Your task to perform on an android device: Install the Pandora app Image 0: 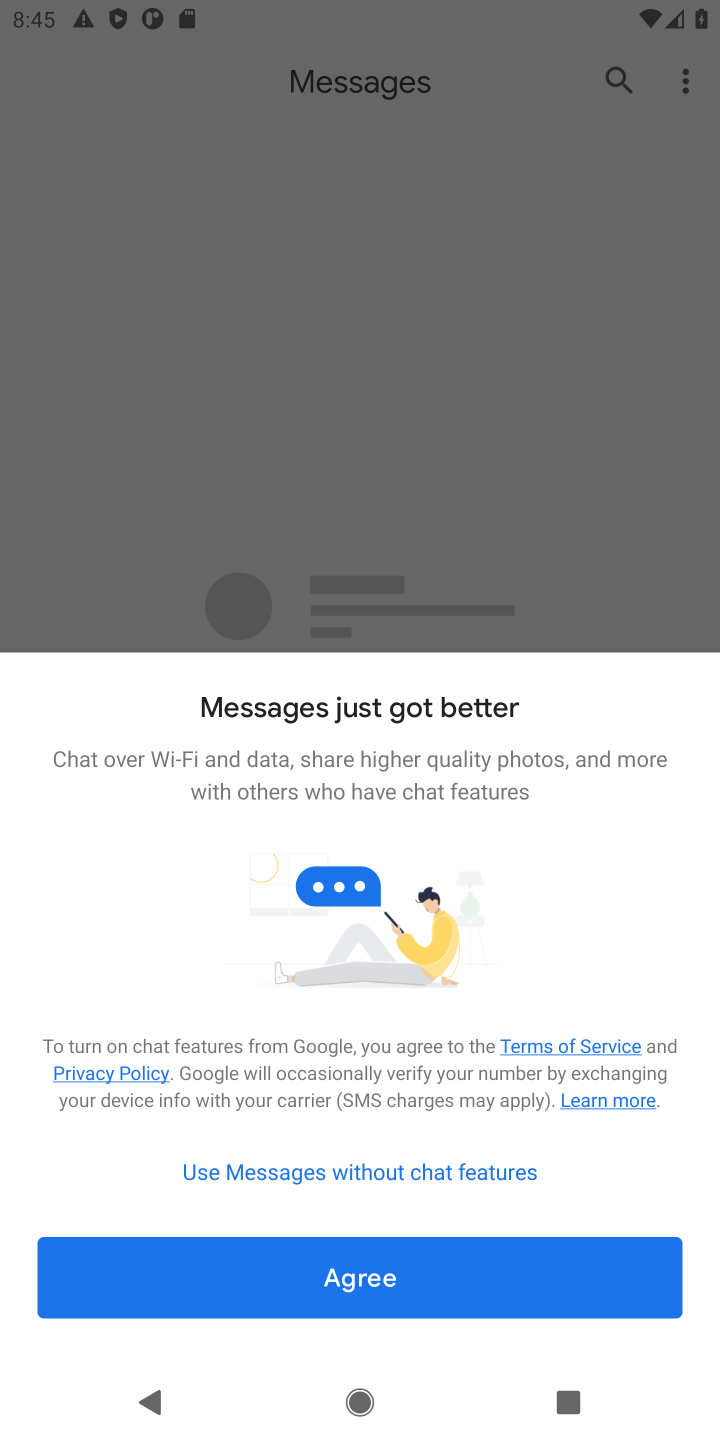
Step 0: press home button
Your task to perform on an android device: Install the Pandora app Image 1: 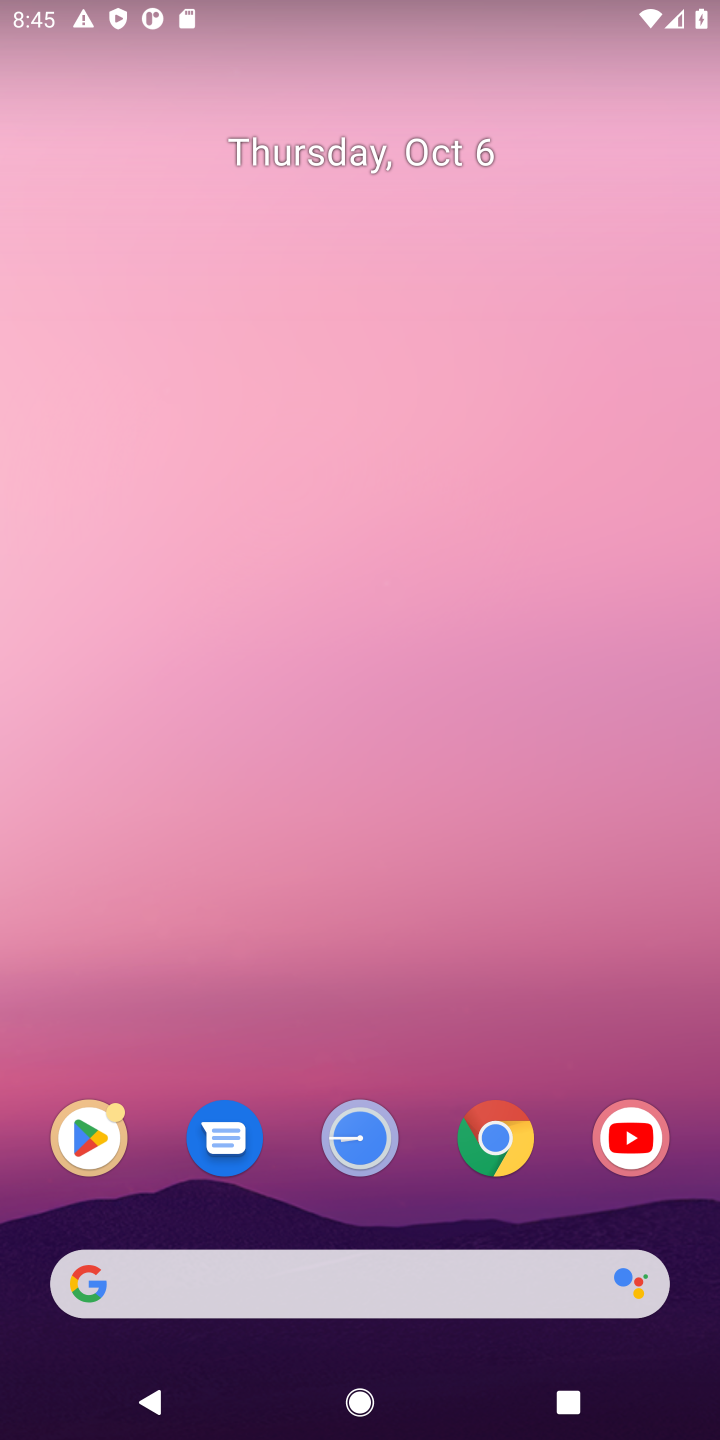
Step 1: click (79, 1132)
Your task to perform on an android device: Install the Pandora app Image 2: 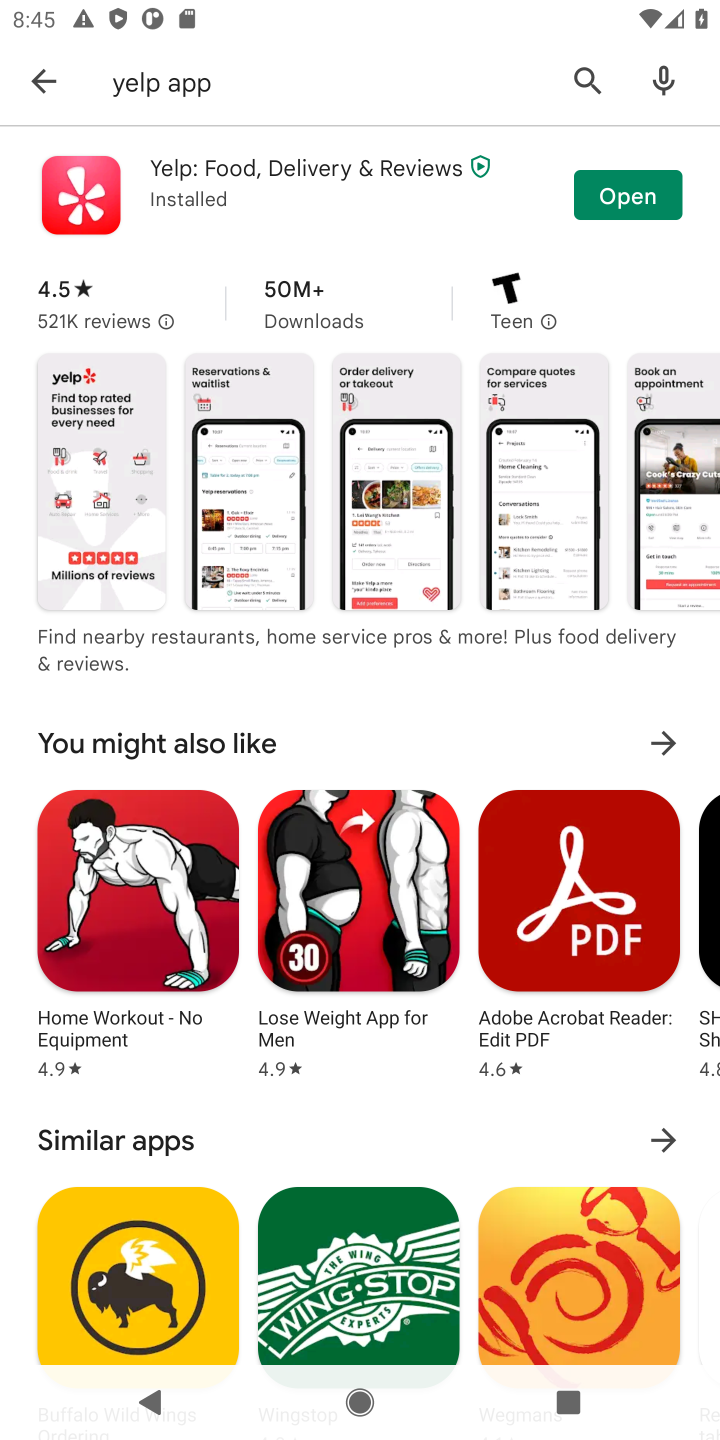
Step 2: click (281, 90)
Your task to perform on an android device: Install the Pandora app Image 3: 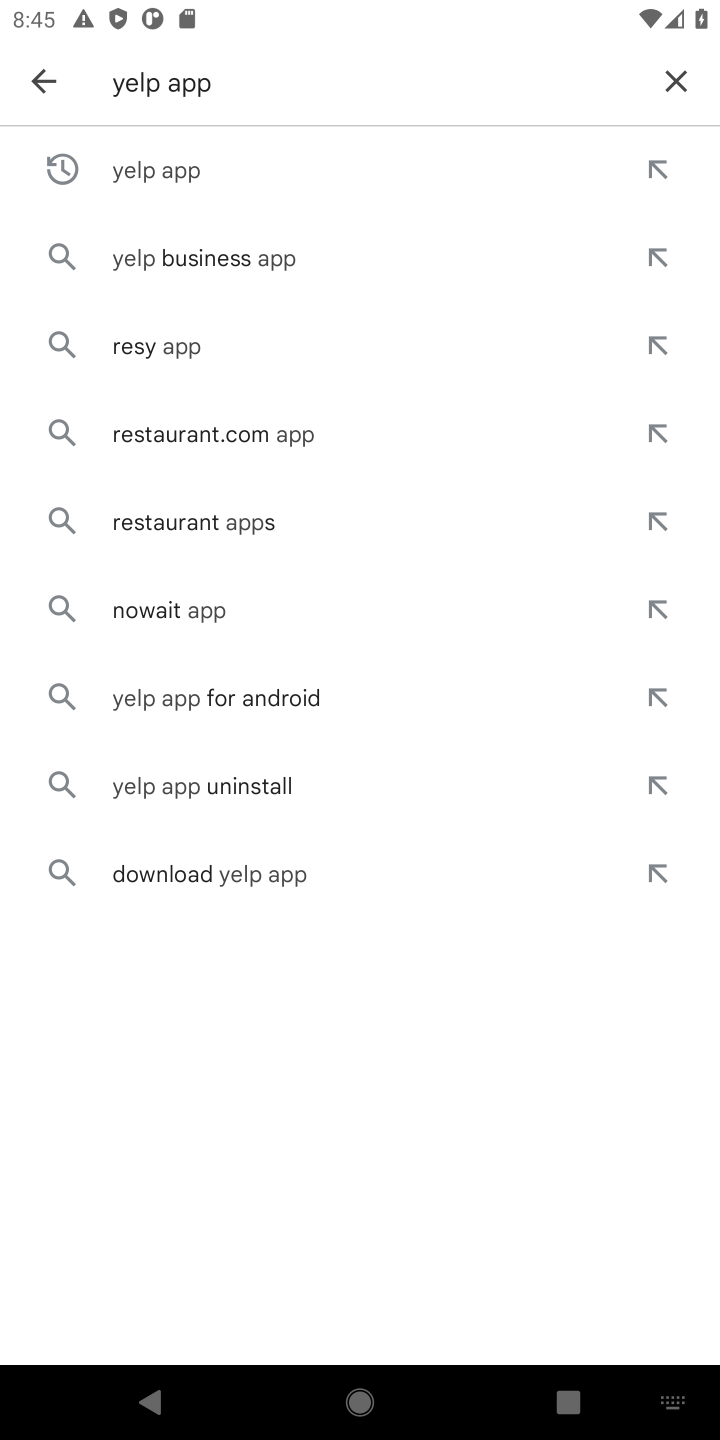
Step 3: click (680, 70)
Your task to perform on an android device: Install the Pandora app Image 4: 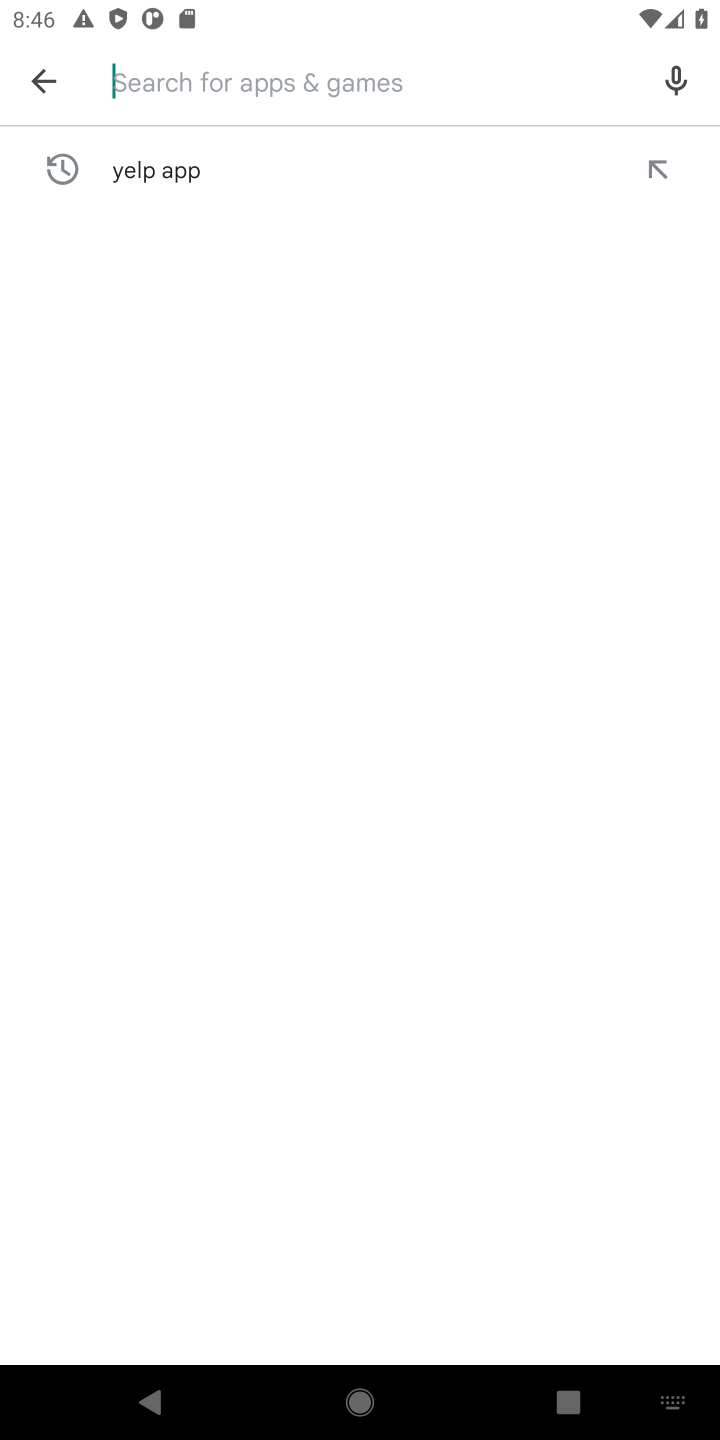
Step 4: type "pandora app"
Your task to perform on an android device: Install the Pandora app Image 5: 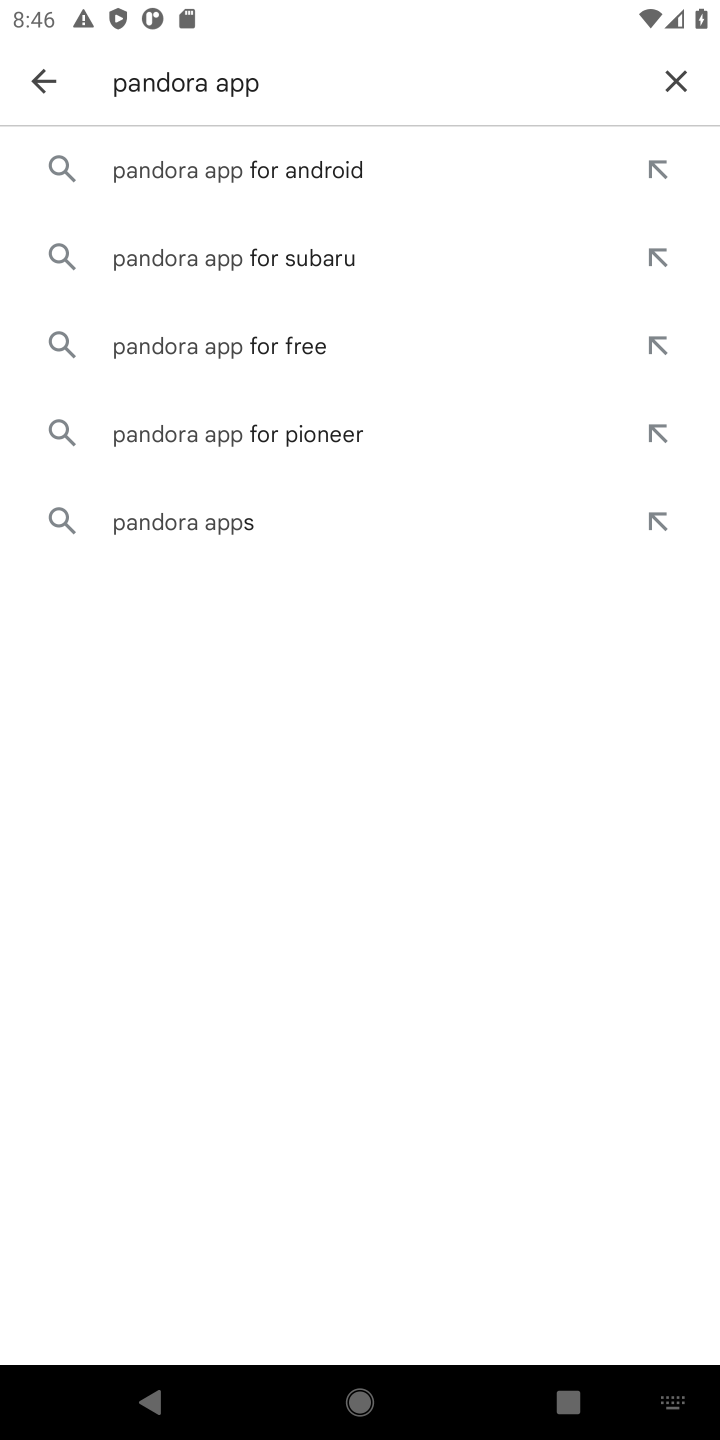
Step 5: click (222, 515)
Your task to perform on an android device: Install the Pandora app Image 6: 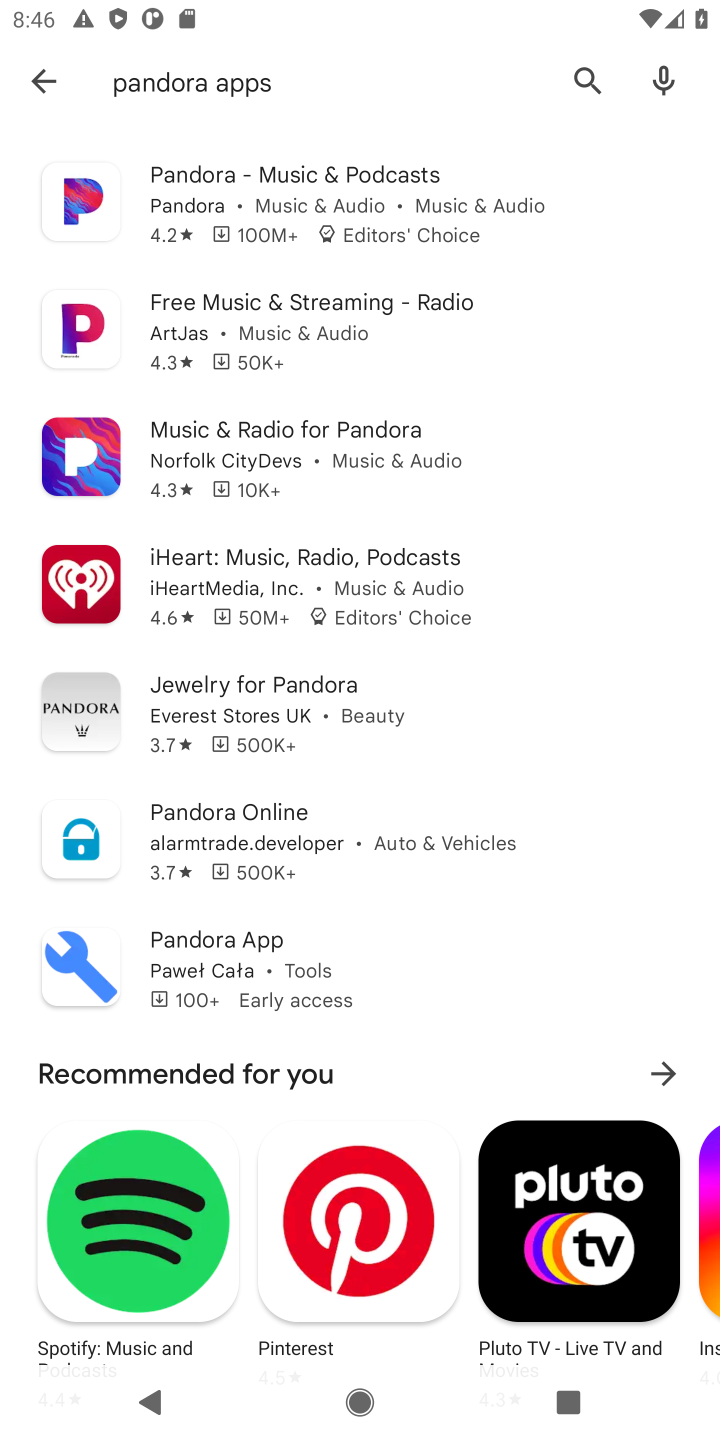
Step 6: click (237, 945)
Your task to perform on an android device: Install the Pandora app Image 7: 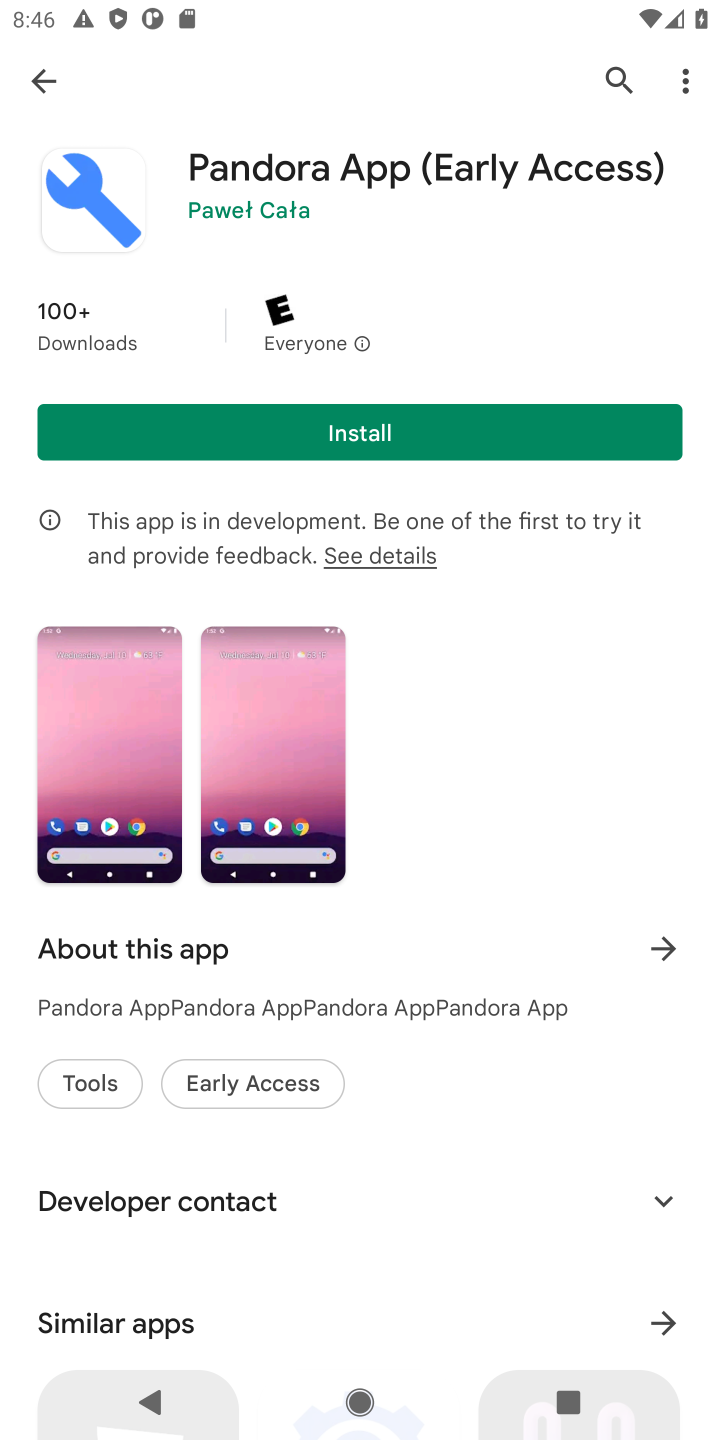
Step 7: click (330, 441)
Your task to perform on an android device: Install the Pandora app Image 8: 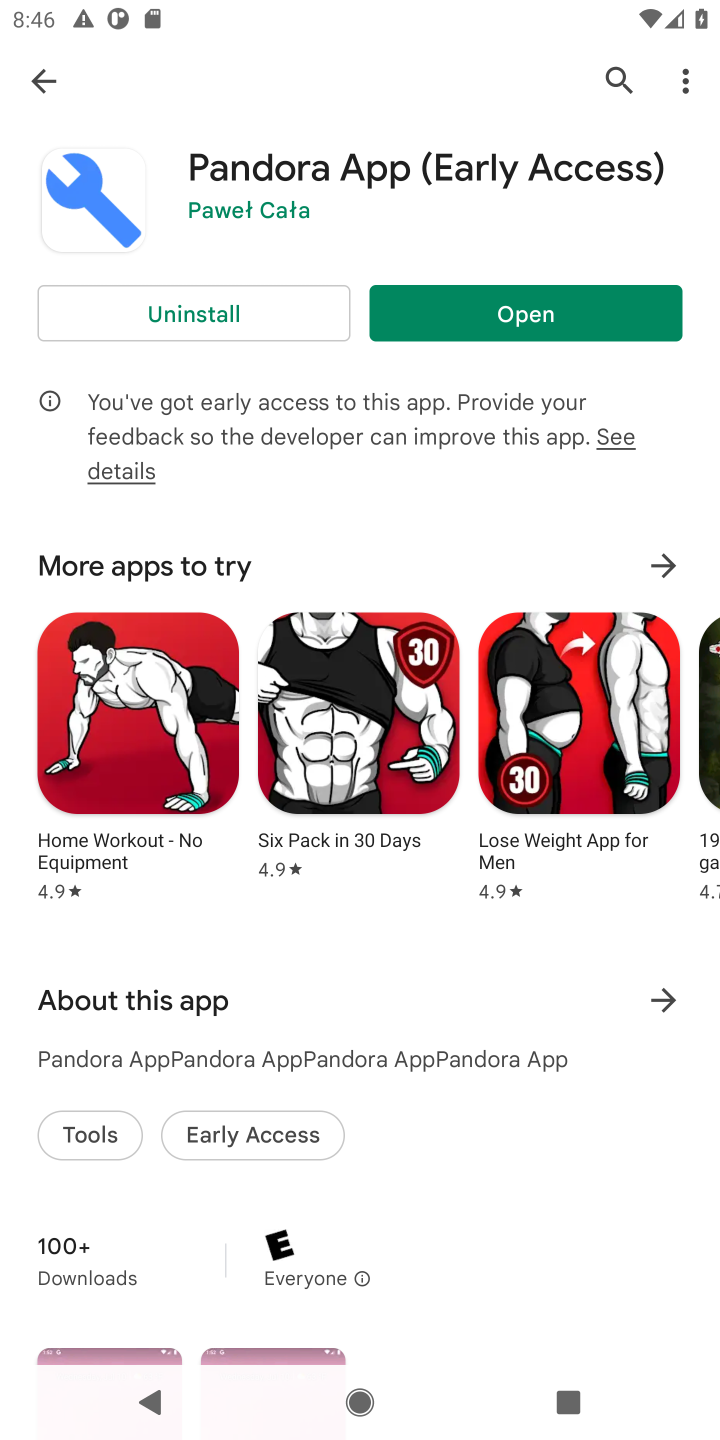
Step 8: task complete